Your task to perform on an android device: Go to privacy settings Image 0: 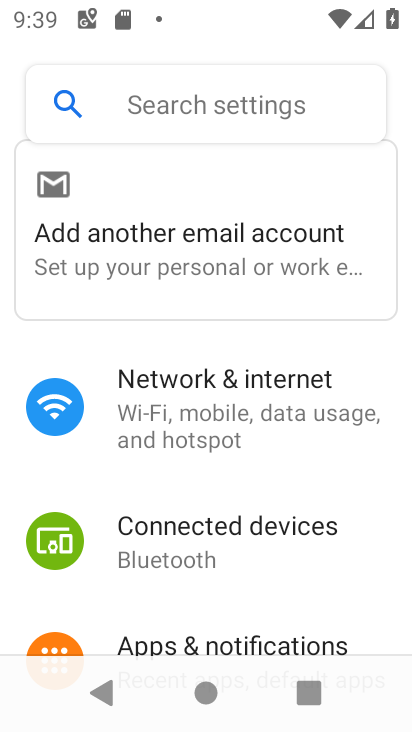
Step 0: drag from (288, 544) to (369, 16)
Your task to perform on an android device: Go to privacy settings Image 1: 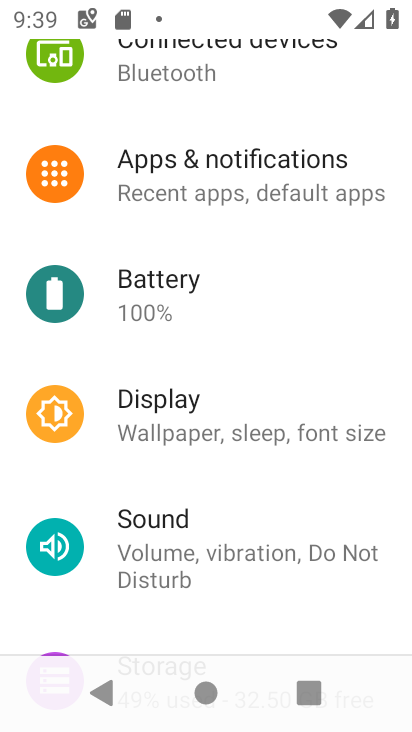
Step 1: drag from (240, 496) to (301, 106)
Your task to perform on an android device: Go to privacy settings Image 2: 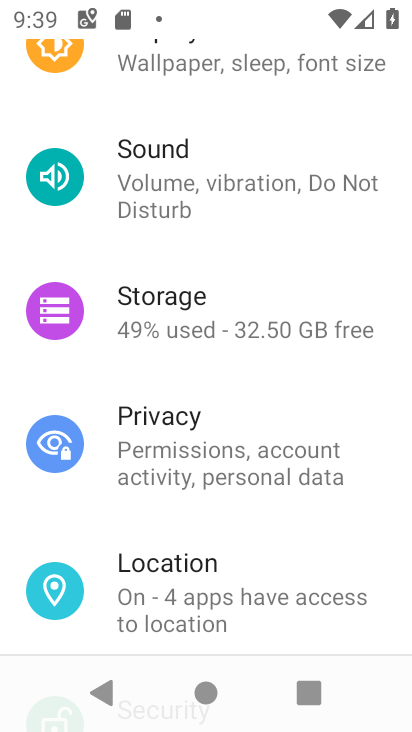
Step 2: click (173, 465)
Your task to perform on an android device: Go to privacy settings Image 3: 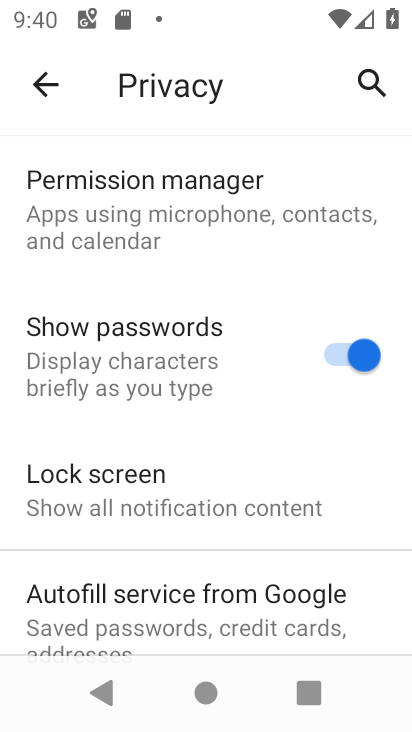
Step 3: task complete